Your task to perform on an android device: turn off priority inbox in the gmail app Image 0: 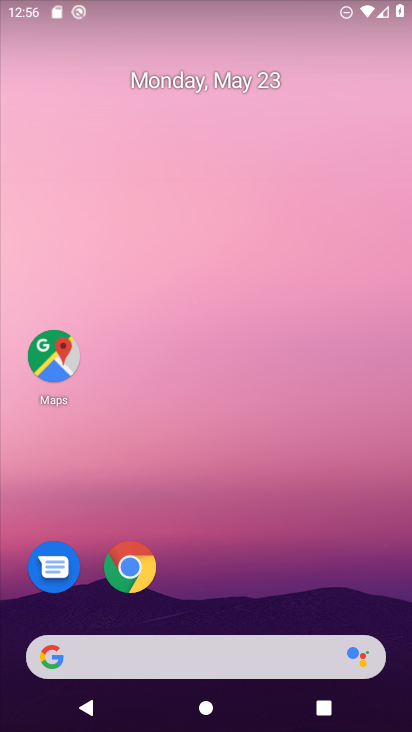
Step 0: drag from (216, 613) to (182, 46)
Your task to perform on an android device: turn off priority inbox in the gmail app Image 1: 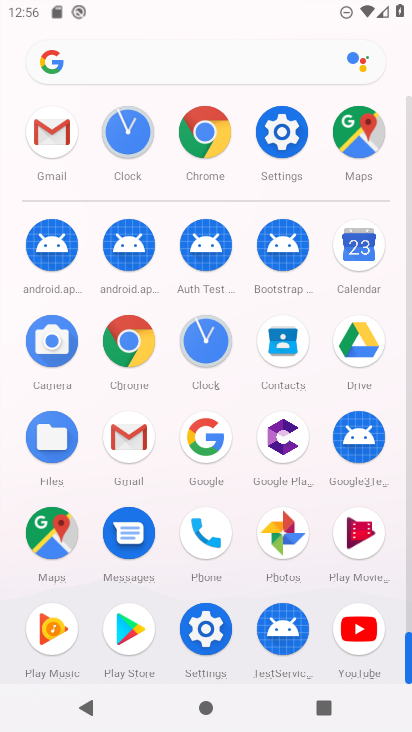
Step 1: click (61, 148)
Your task to perform on an android device: turn off priority inbox in the gmail app Image 2: 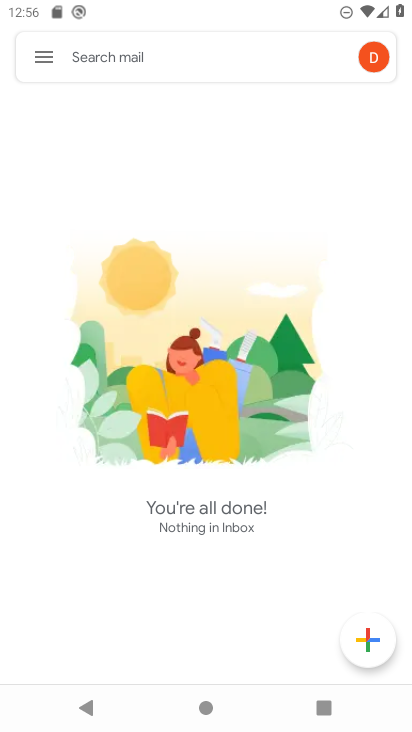
Step 2: click (39, 59)
Your task to perform on an android device: turn off priority inbox in the gmail app Image 3: 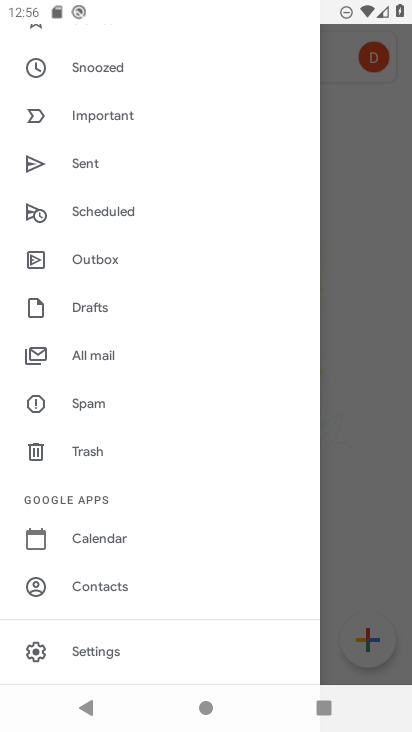
Step 3: click (84, 652)
Your task to perform on an android device: turn off priority inbox in the gmail app Image 4: 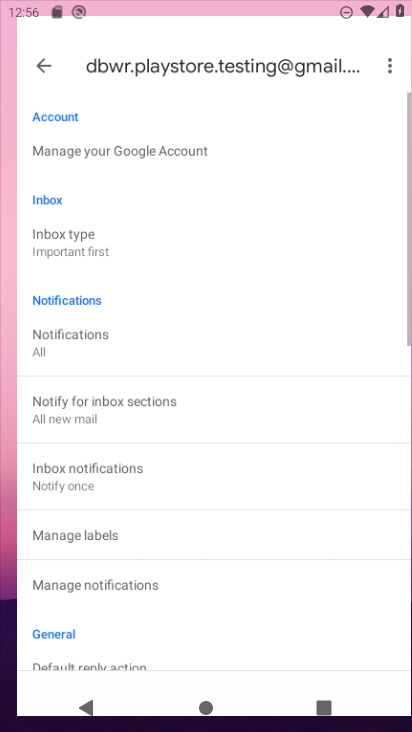
Step 4: click (84, 652)
Your task to perform on an android device: turn off priority inbox in the gmail app Image 5: 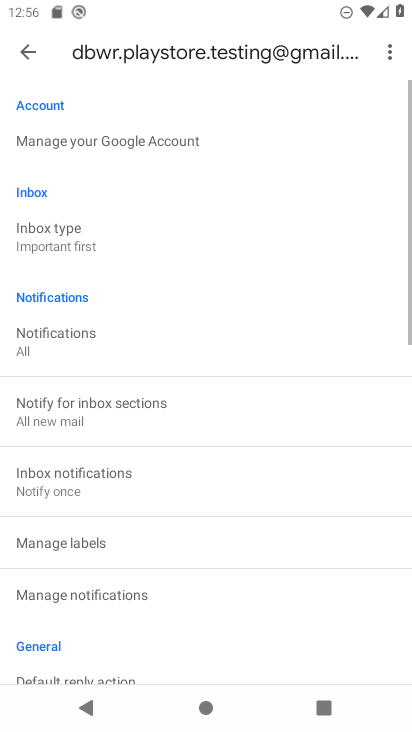
Step 5: click (145, 652)
Your task to perform on an android device: turn off priority inbox in the gmail app Image 6: 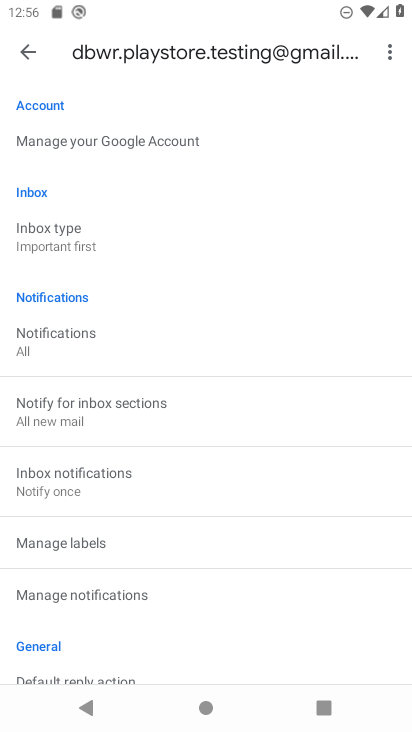
Step 6: click (95, 252)
Your task to perform on an android device: turn off priority inbox in the gmail app Image 7: 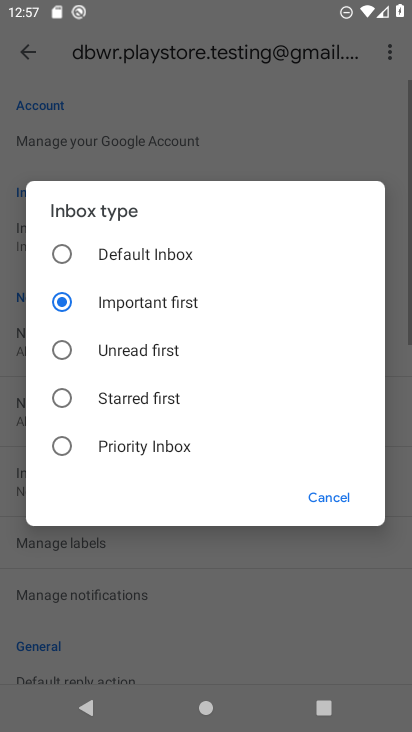
Step 7: task complete